Your task to perform on an android device: turn on showing notifications on the lock screen Image 0: 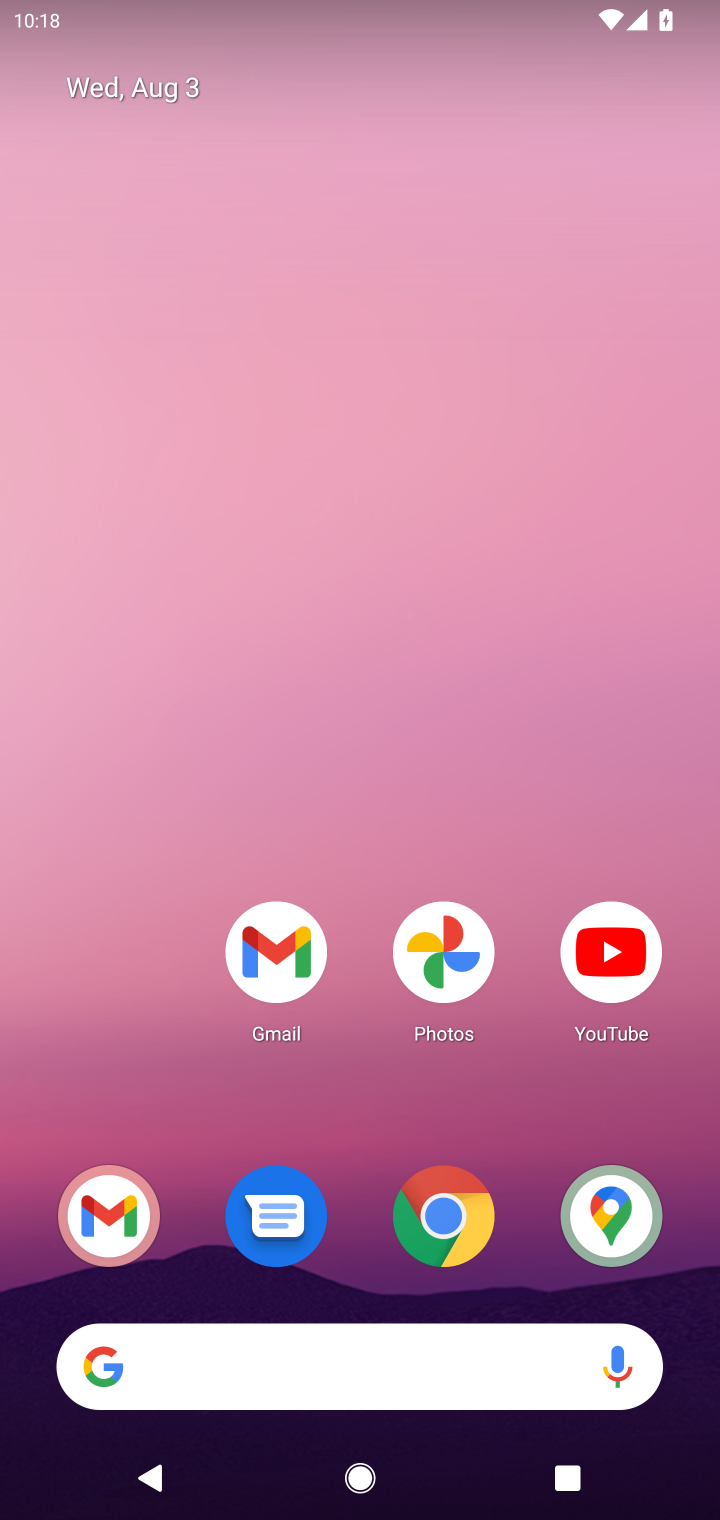
Step 0: drag from (161, 957) to (288, 10)
Your task to perform on an android device: turn on showing notifications on the lock screen Image 1: 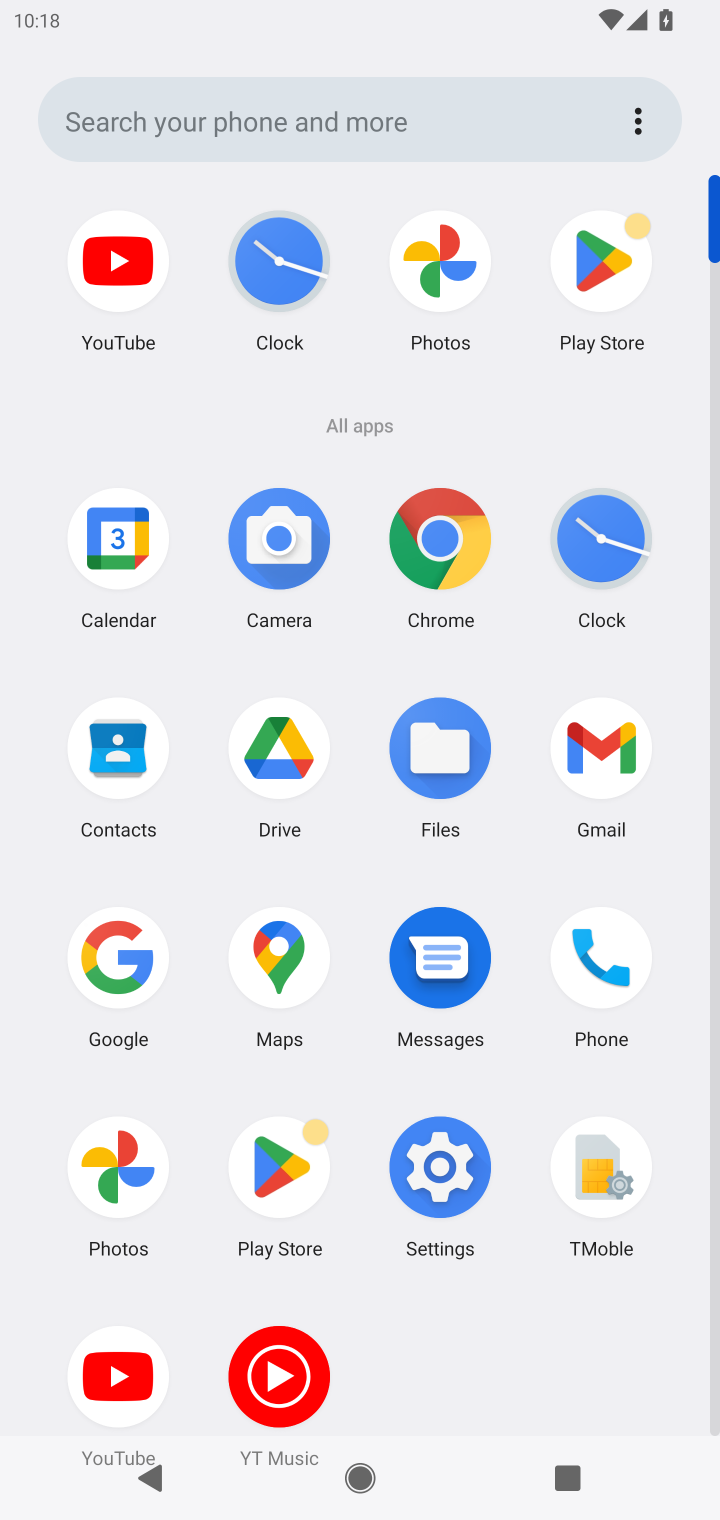
Step 1: click (411, 1189)
Your task to perform on an android device: turn on showing notifications on the lock screen Image 2: 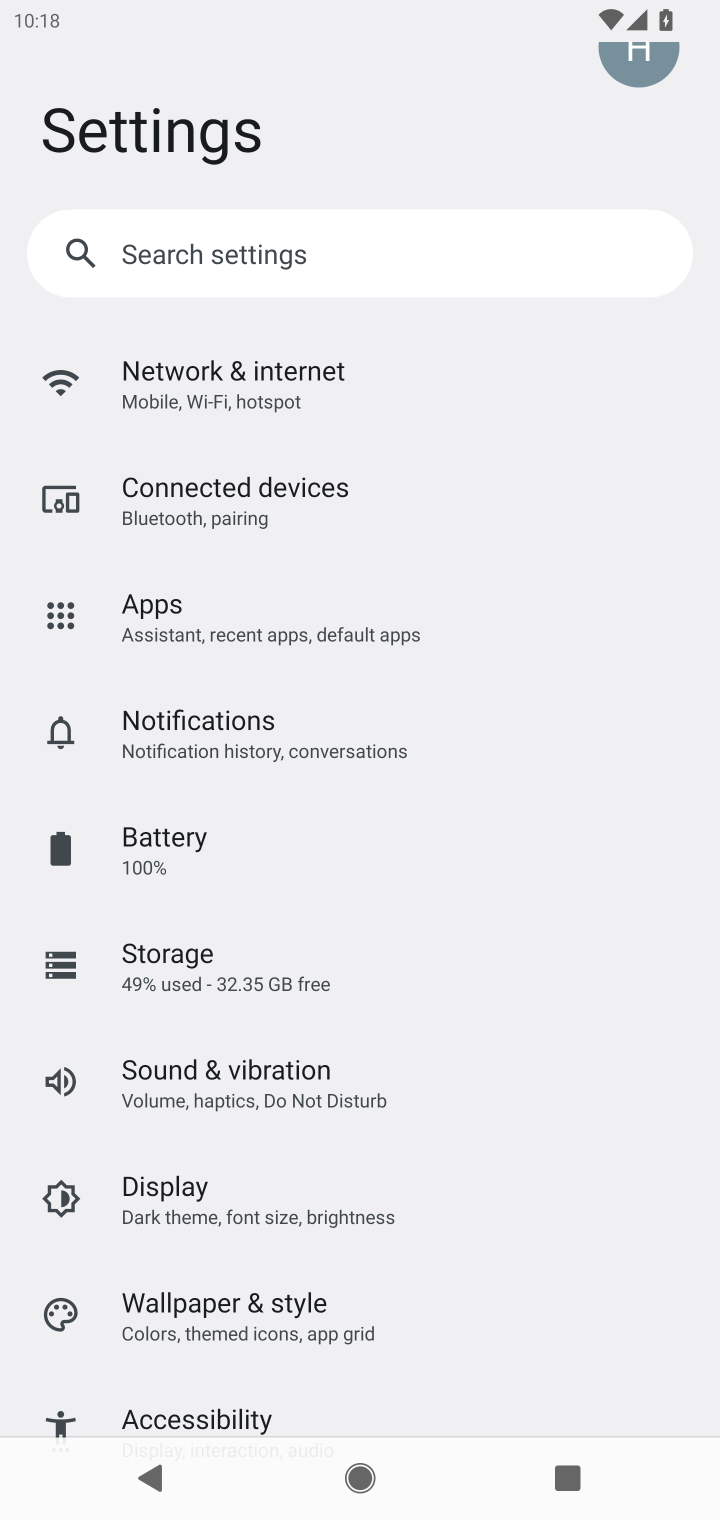
Step 2: click (317, 756)
Your task to perform on an android device: turn on showing notifications on the lock screen Image 3: 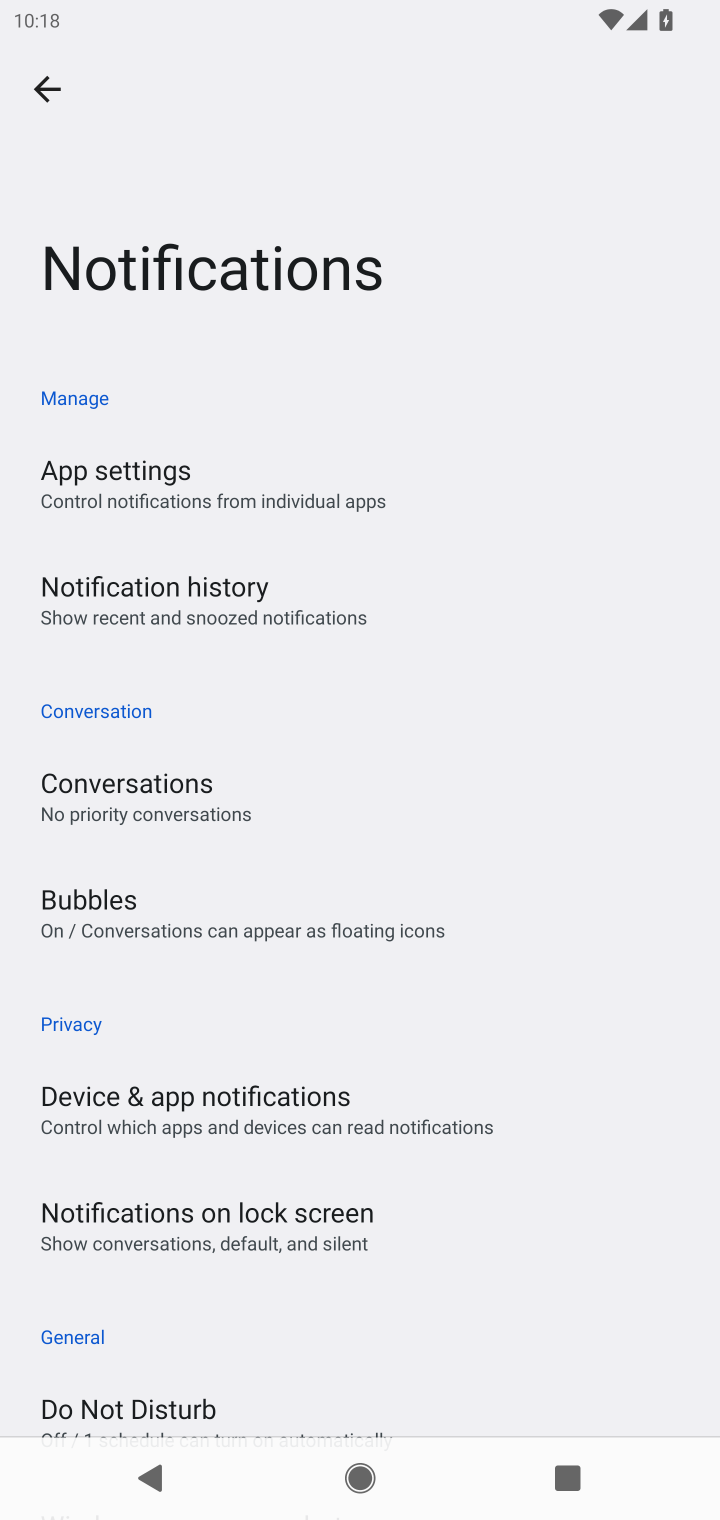
Step 3: drag from (225, 1177) to (335, 373)
Your task to perform on an android device: turn on showing notifications on the lock screen Image 4: 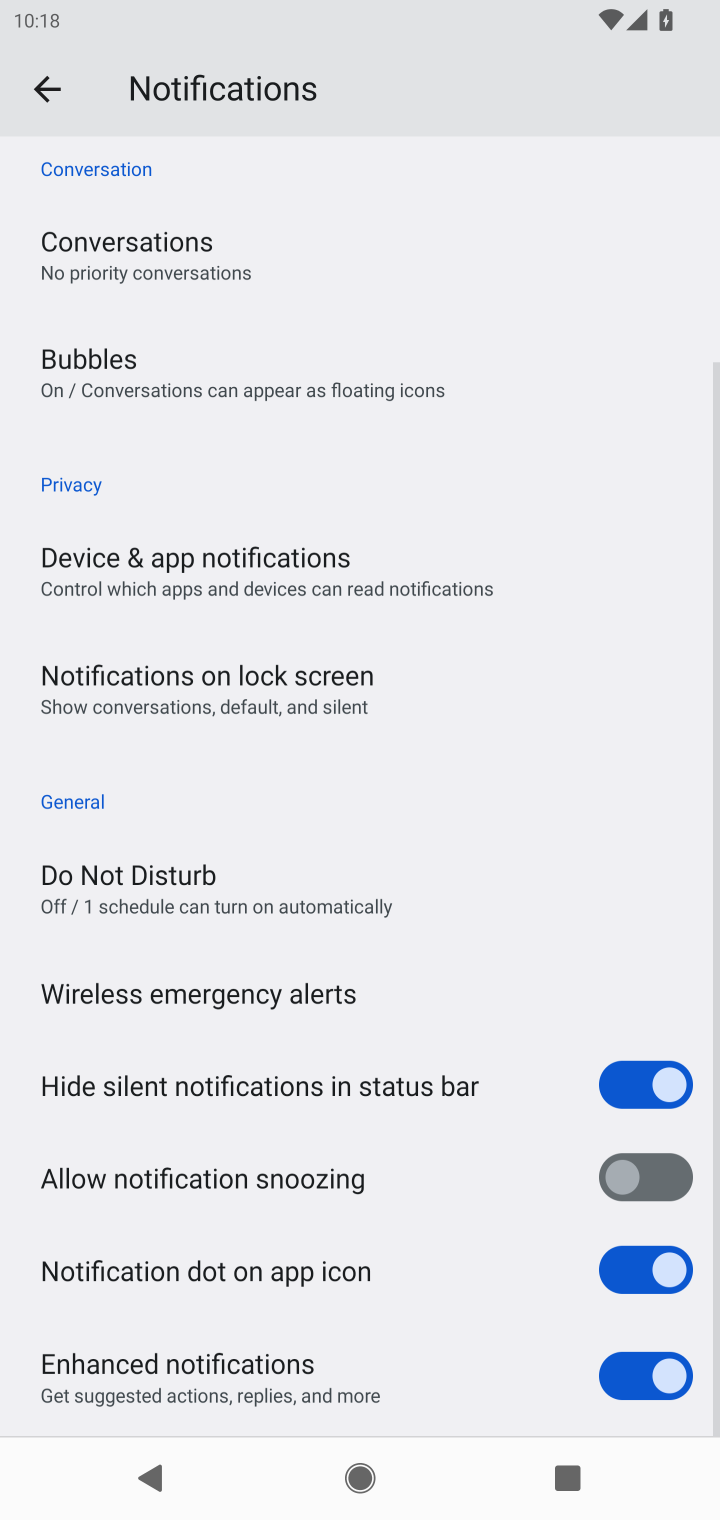
Step 4: click (184, 689)
Your task to perform on an android device: turn on showing notifications on the lock screen Image 5: 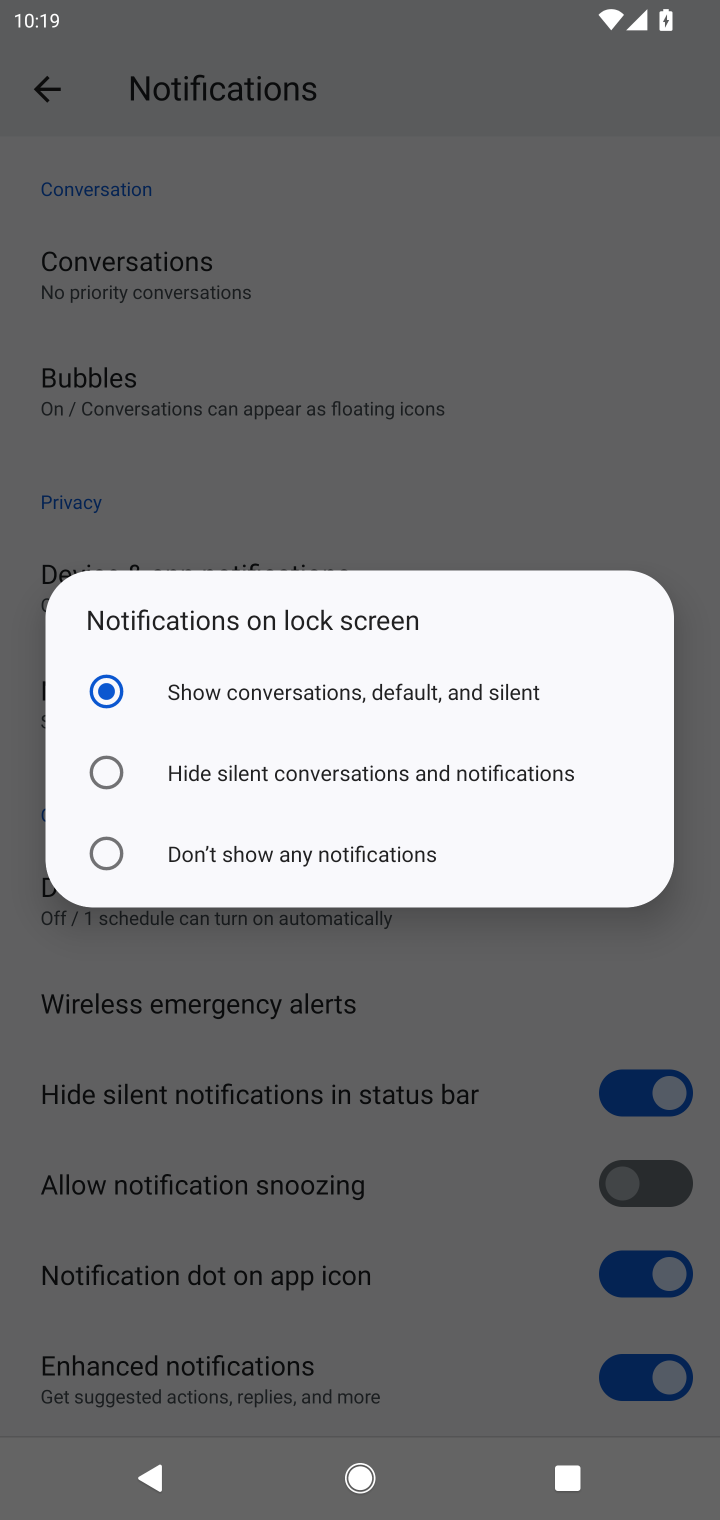
Step 5: task complete